Your task to perform on an android device: check data usage Image 0: 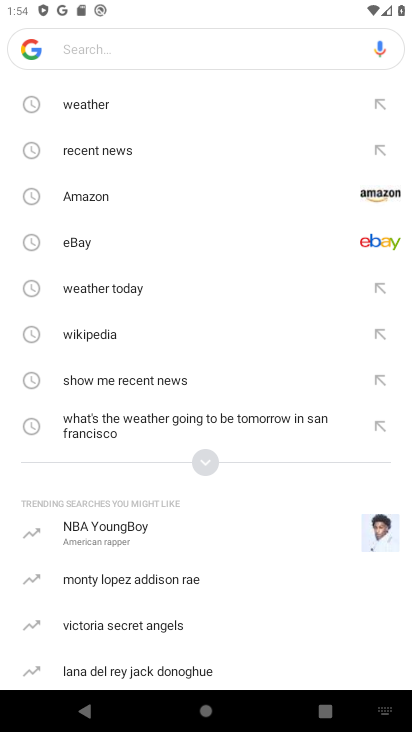
Step 0: press back button
Your task to perform on an android device: check data usage Image 1: 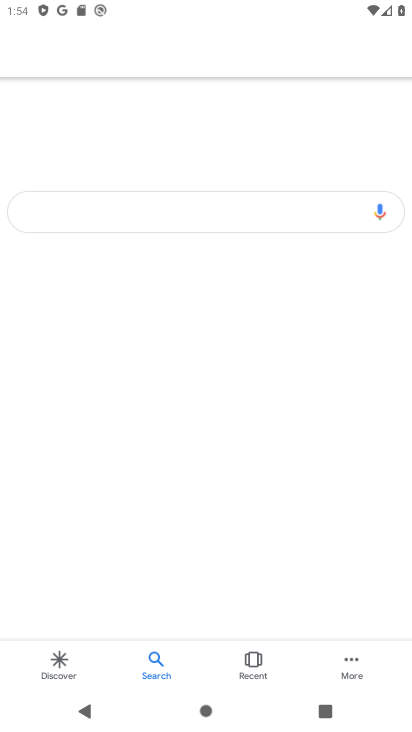
Step 1: press back button
Your task to perform on an android device: check data usage Image 2: 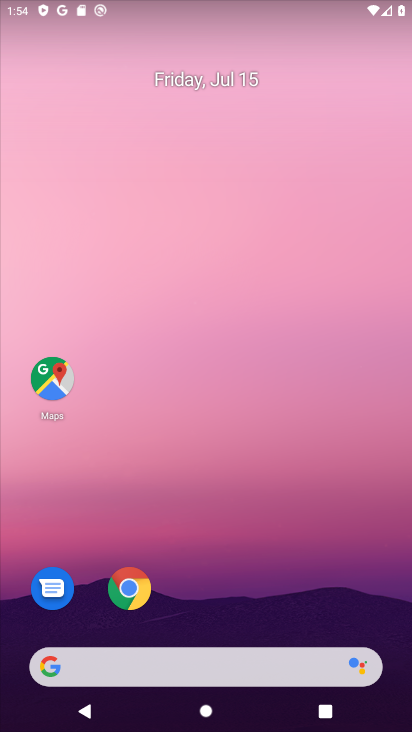
Step 2: drag from (343, 610) to (154, 53)
Your task to perform on an android device: check data usage Image 3: 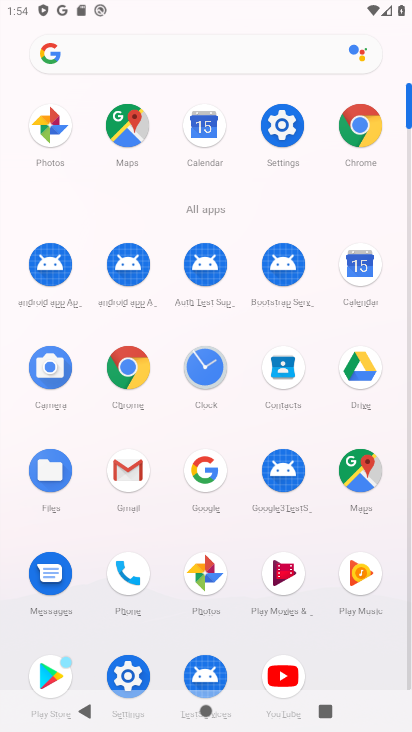
Step 3: click (264, 122)
Your task to perform on an android device: check data usage Image 4: 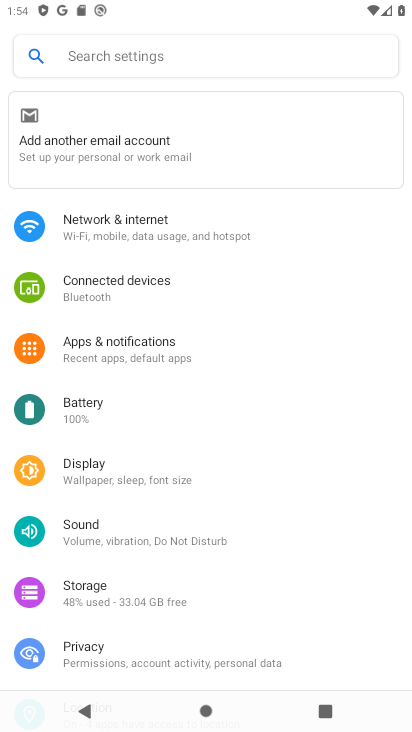
Step 4: click (184, 219)
Your task to perform on an android device: check data usage Image 5: 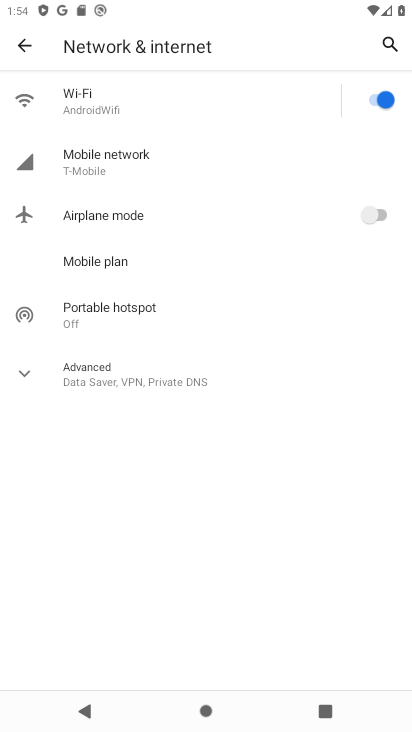
Step 5: click (107, 151)
Your task to perform on an android device: check data usage Image 6: 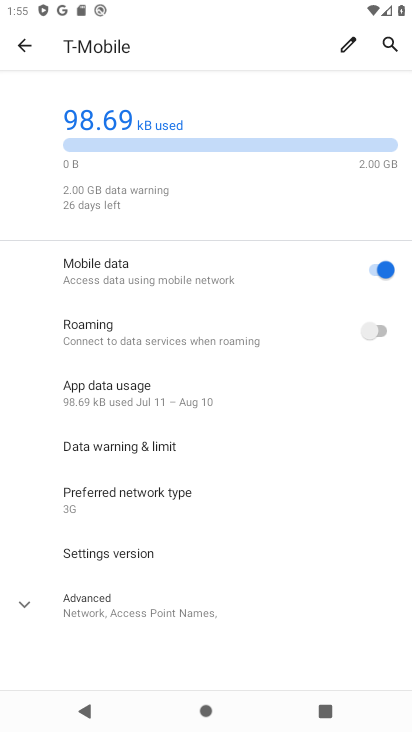
Step 6: task complete